Your task to perform on an android device: manage bookmarks in the chrome app Image 0: 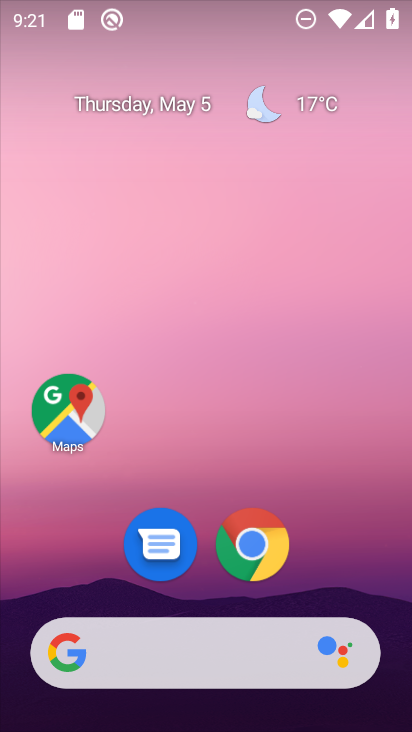
Step 0: drag from (396, 629) to (305, 61)
Your task to perform on an android device: manage bookmarks in the chrome app Image 1: 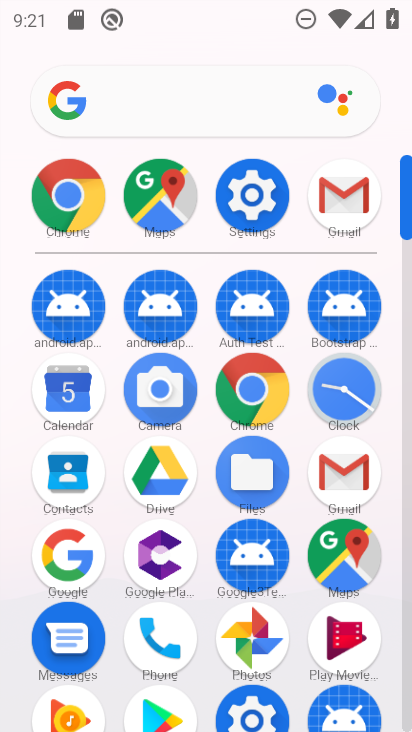
Step 1: click (255, 400)
Your task to perform on an android device: manage bookmarks in the chrome app Image 2: 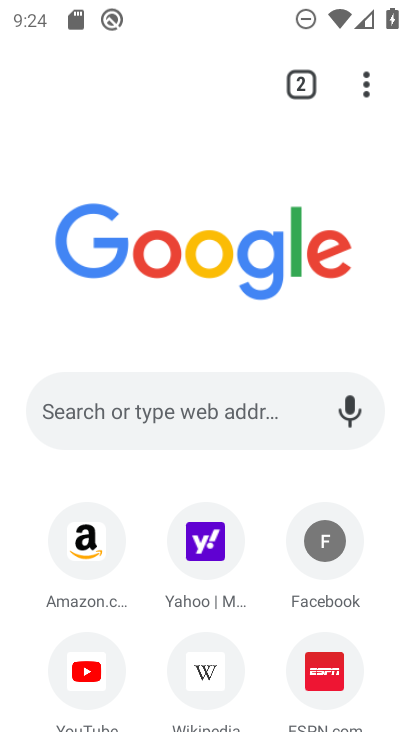
Step 2: task complete